Your task to perform on an android device: show emergency info Image 0: 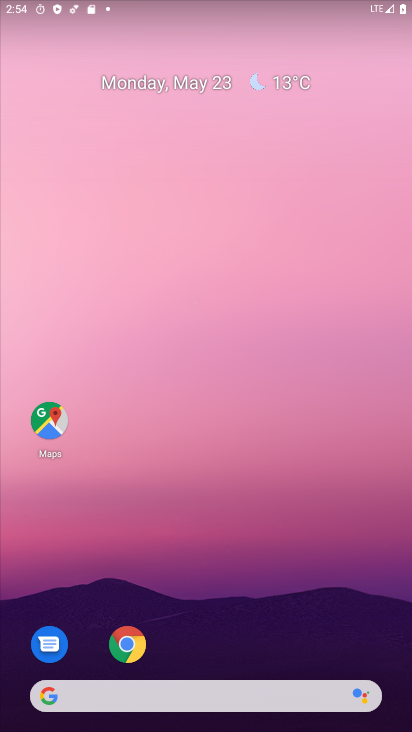
Step 0: drag from (196, 665) to (110, 3)
Your task to perform on an android device: show emergency info Image 1: 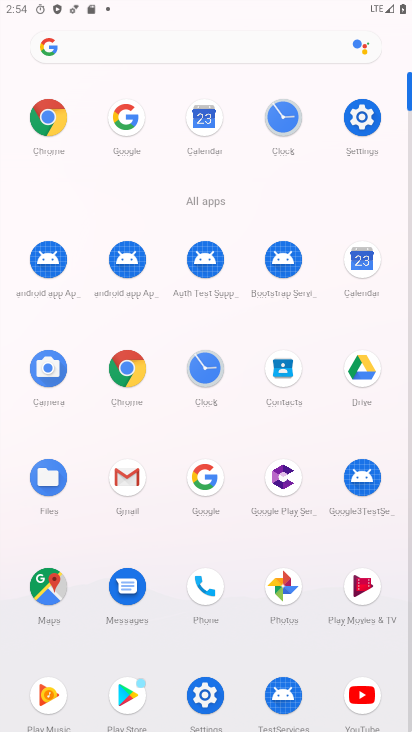
Step 1: click (342, 115)
Your task to perform on an android device: show emergency info Image 2: 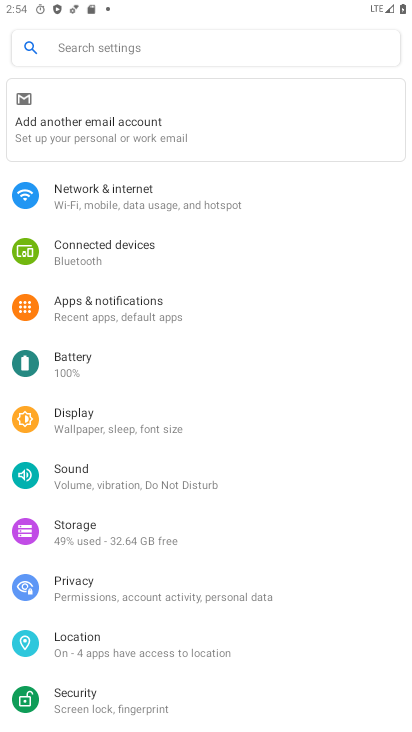
Step 2: drag from (154, 648) to (82, 5)
Your task to perform on an android device: show emergency info Image 3: 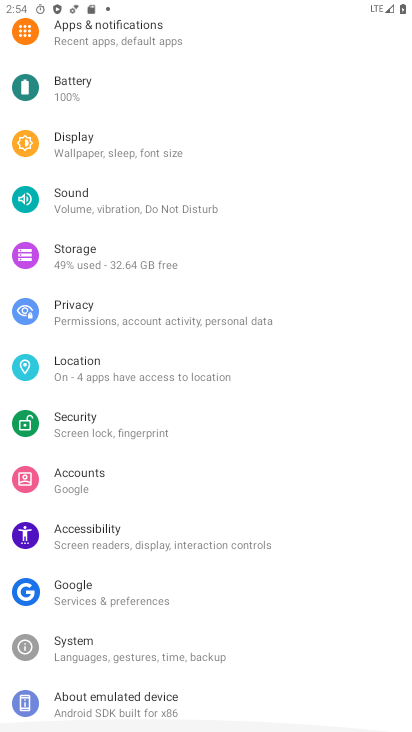
Step 3: click (134, 691)
Your task to perform on an android device: show emergency info Image 4: 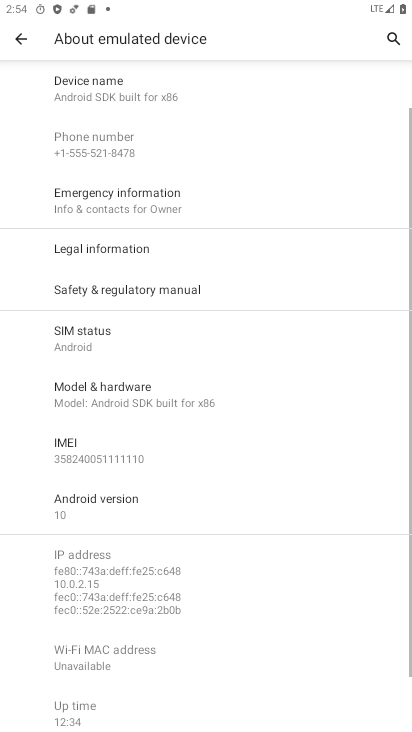
Step 4: task complete